Your task to perform on an android device: Go to CNN.com Image 0: 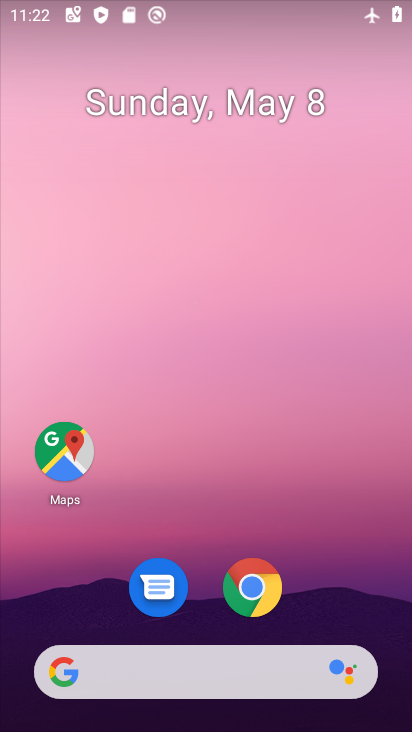
Step 0: drag from (344, 637) to (78, 163)
Your task to perform on an android device: Go to CNN.com Image 1: 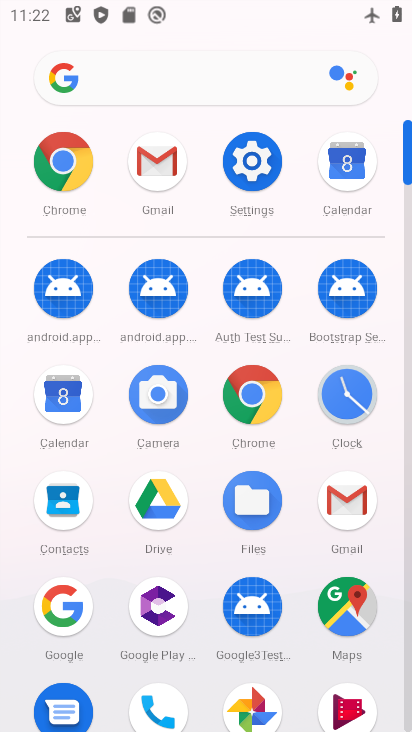
Step 1: click (58, 148)
Your task to perform on an android device: Go to CNN.com Image 2: 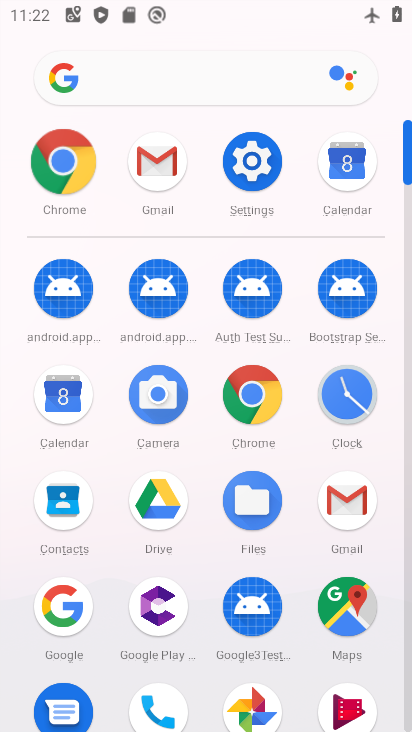
Step 2: click (58, 148)
Your task to perform on an android device: Go to CNN.com Image 3: 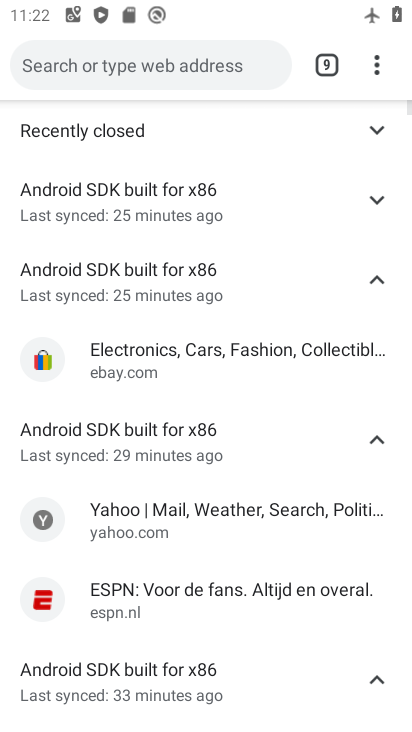
Step 3: click (129, 69)
Your task to perform on an android device: Go to CNN.com Image 4: 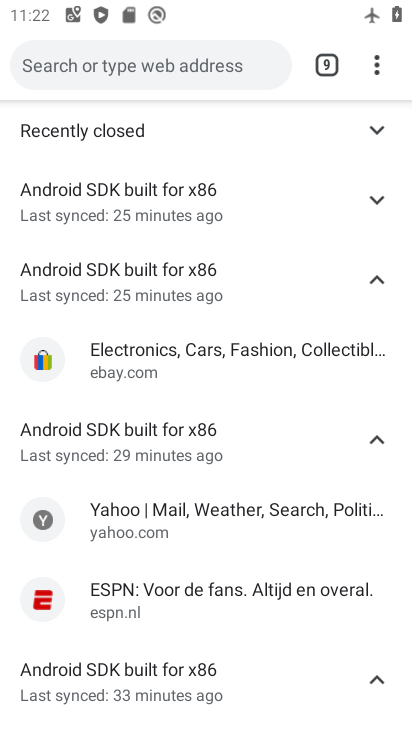
Step 4: click (129, 69)
Your task to perform on an android device: Go to CNN.com Image 5: 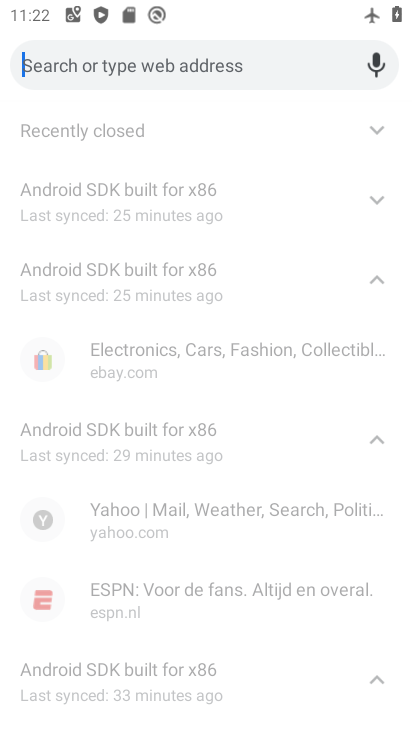
Step 5: click (129, 69)
Your task to perform on an android device: Go to CNN.com Image 6: 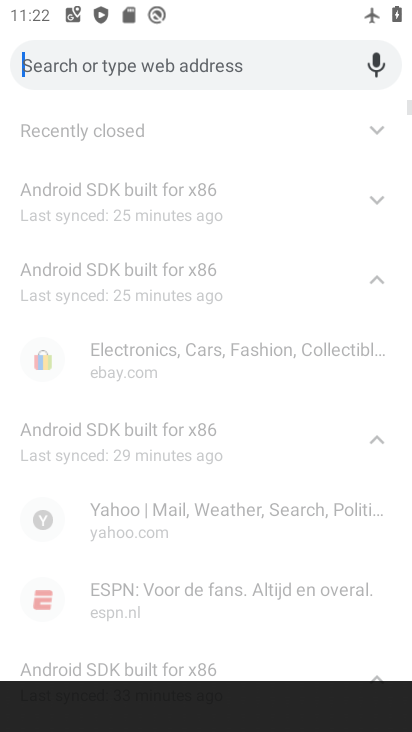
Step 6: click (129, 69)
Your task to perform on an android device: Go to CNN.com Image 7: 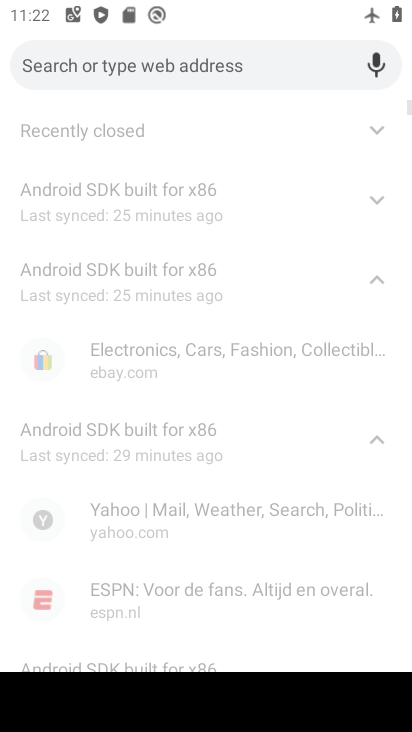
Step 7: click (151, 46)
Your task to perform on an android device: Go to CNN.com Image 8: 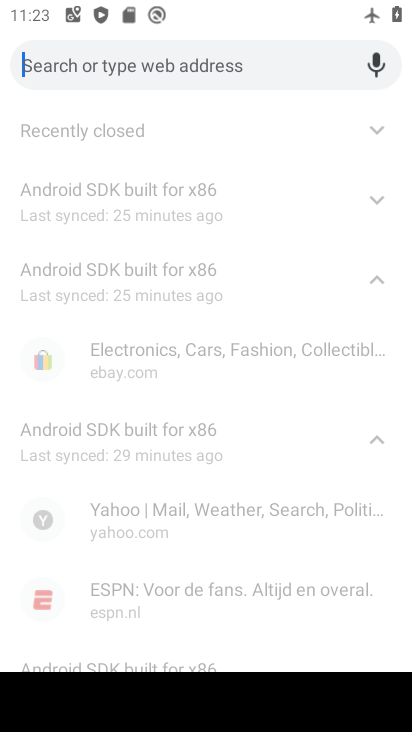
Step 8: type "cnnn.com"
Your task to perform on an android device: Go to CNN.com Image 9: 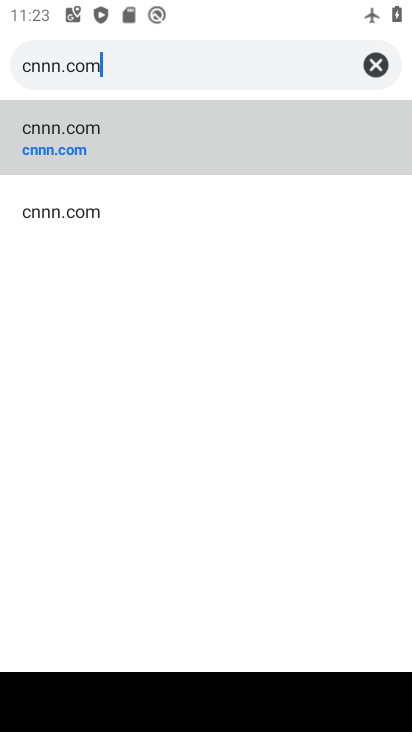
Step 9: click (65, 125)
Your task to perform on an android device: Go to CNN.com Image 10: 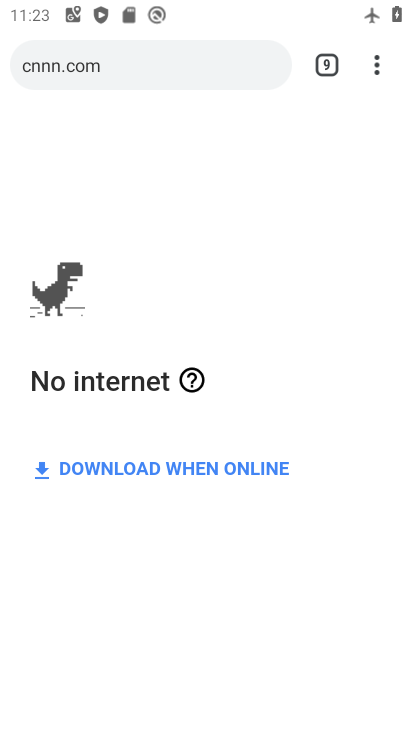
Step 10: task complete